Your task to perform on an android device: What's the weather today? Image 0: 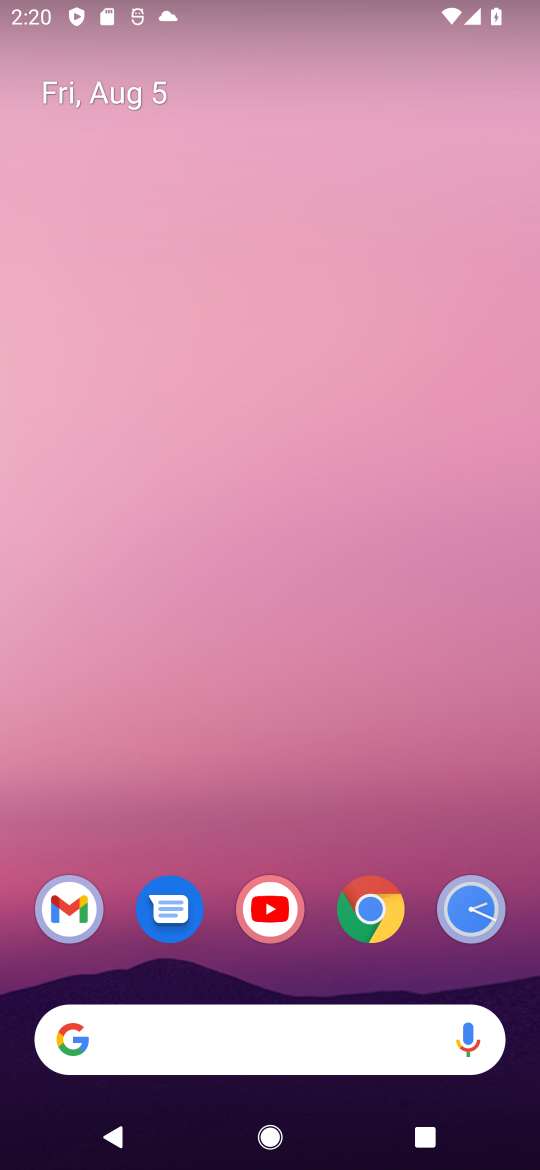
Step 0: click (344, 1033)
Your task to perform on an android device: What's the weather today? Image 1: 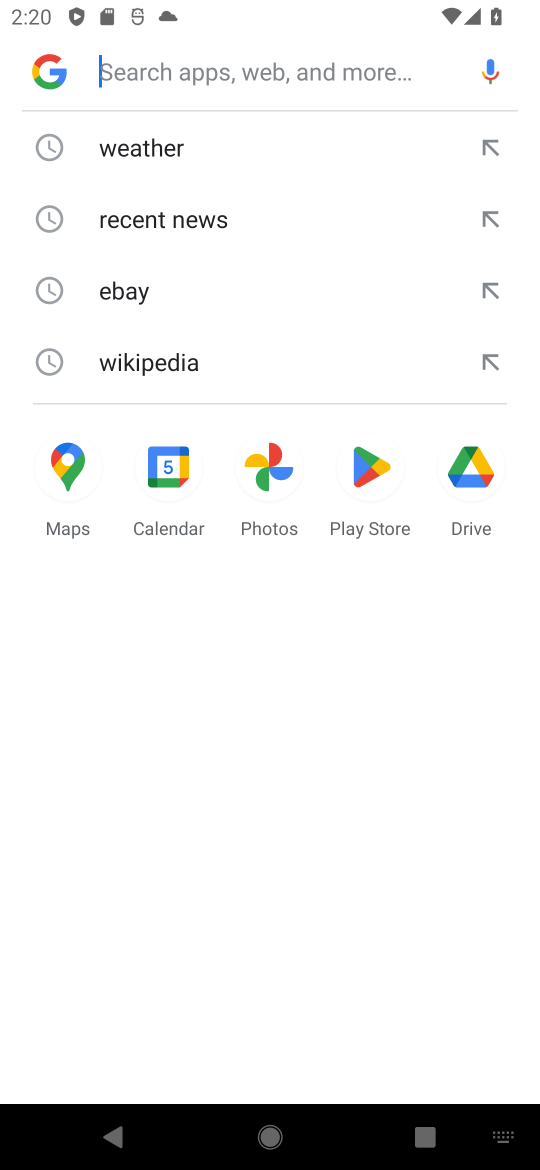
Step 1: click (270, 166)
Your task to perform on an android device: What's the weather today? Image 2: 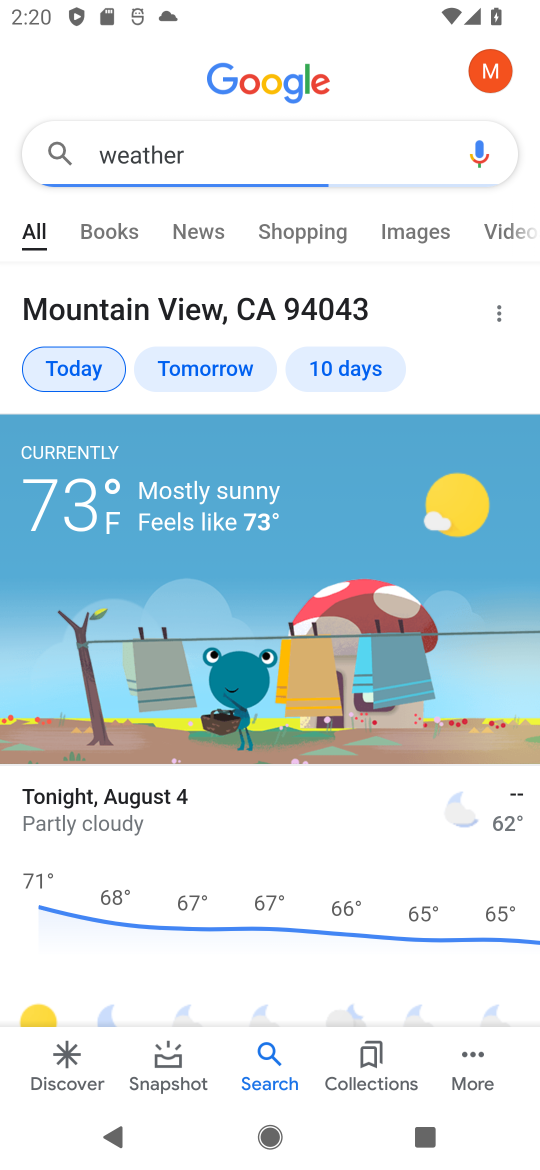
Step 2: task complete